Your task to perform on an android device: Clear the shopping cart on bestbuy. Add apple airpods to the cart on bestbuy Image 0: 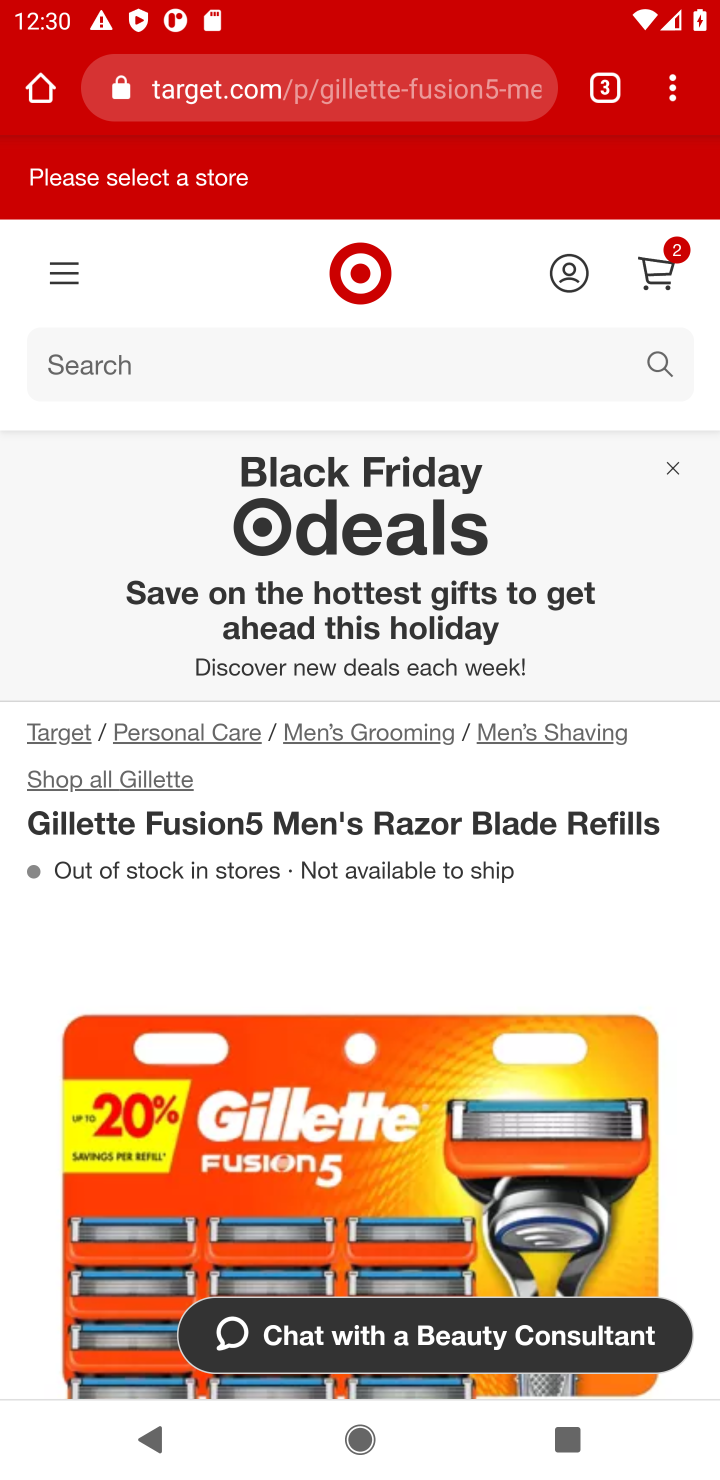
Step 0: click (183, 362)
Your task to perform on an android device: Clear the shopping cart on bestbuy. Add apple airpods to the cart on bestbuy Image 1: 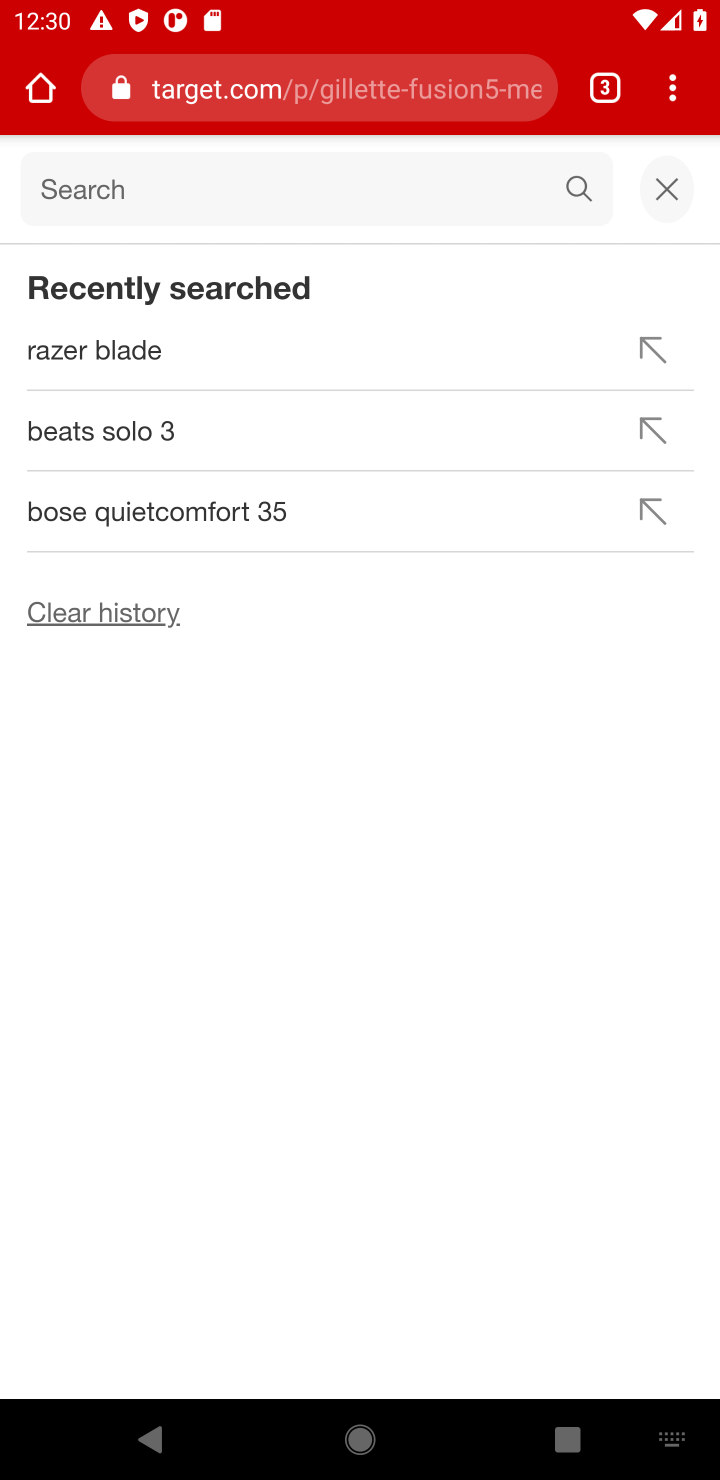
Step 1: type " bestbuy."
Your task to perform on an android device: Clear the shopping cart on bestbuy. Add apple airpods to the cart on bestbuy Image 2: 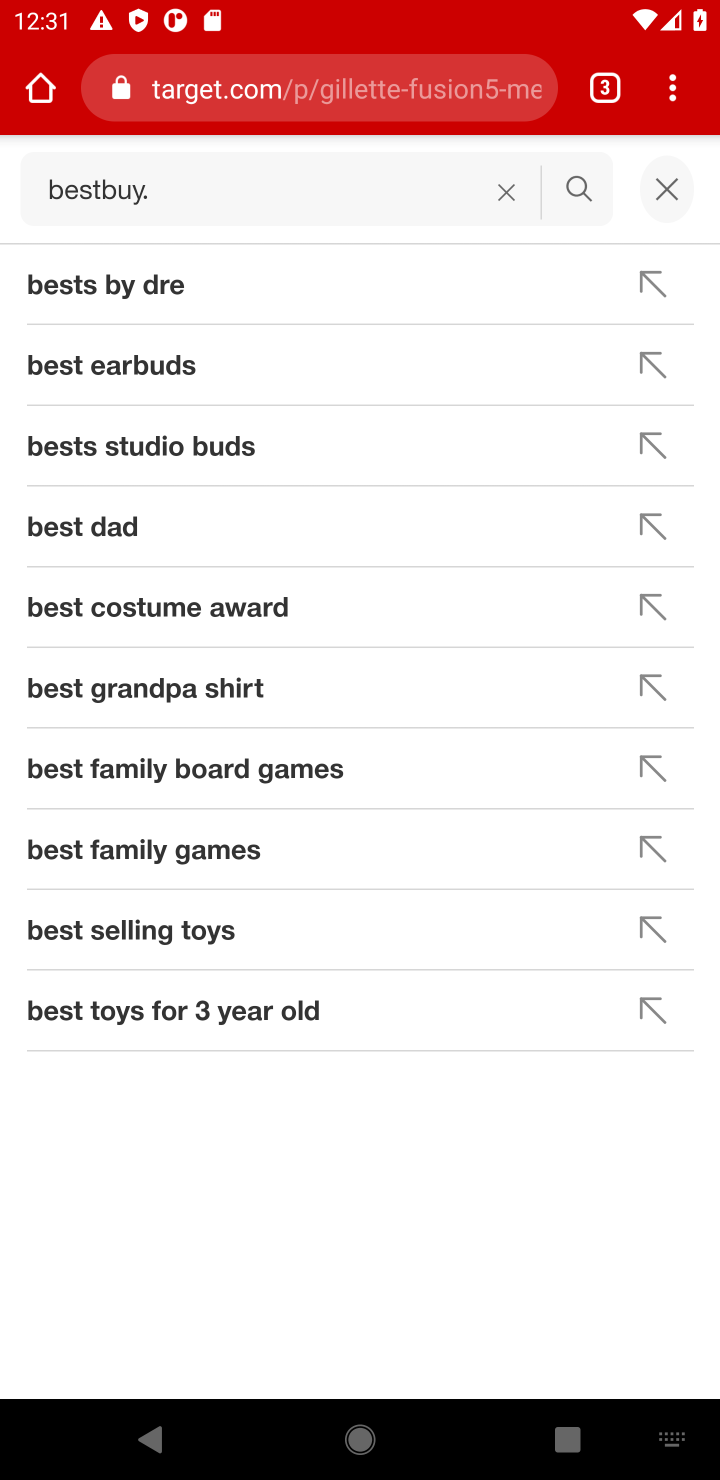
Step 2: click (502, 199)
Your task to perform on an android device: Clear the shopping cart on bestbuy. Add apple airpods to the cart on bestbuy Image 3: 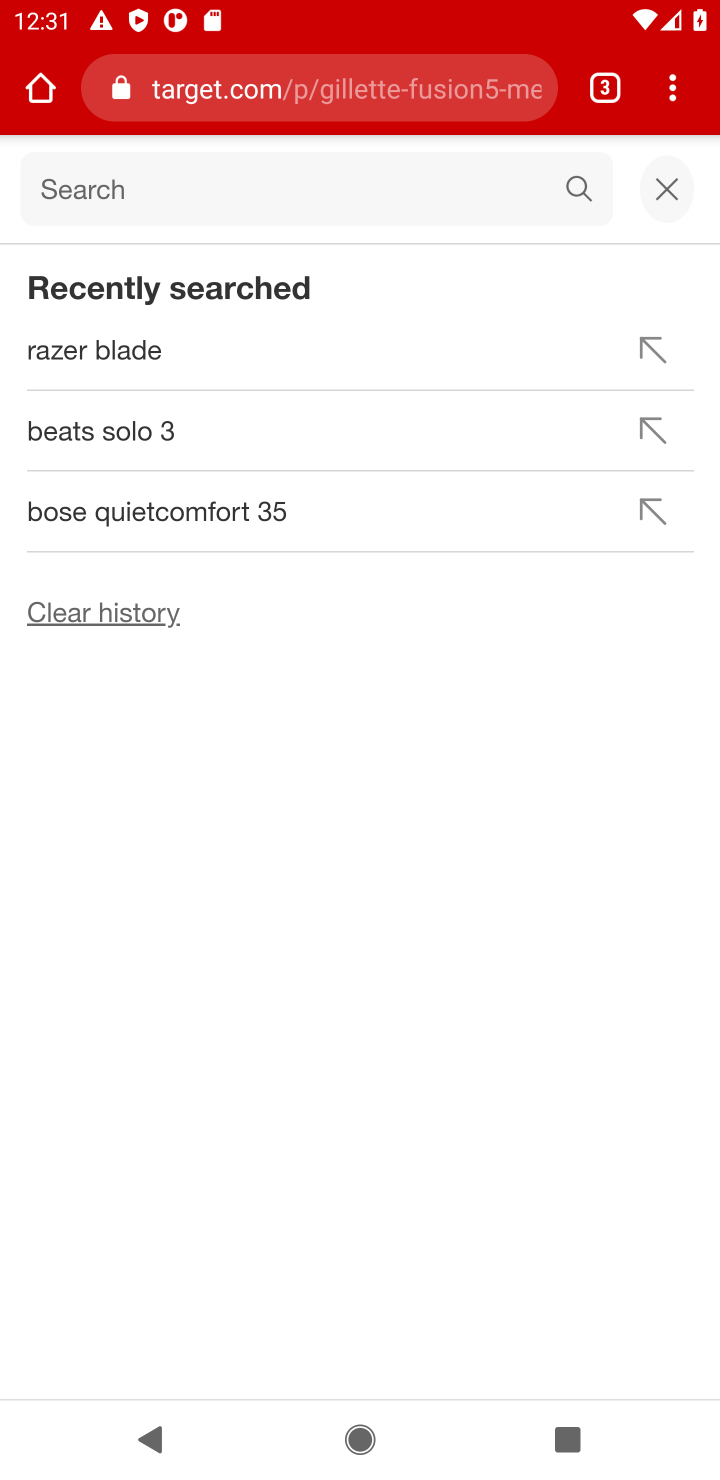
Step 3: type " apple airpods"
Your task to perform on an android device: Clear the shopping cart on bestbuy. Add apple airpods to the cart on bestbuy Image 4: 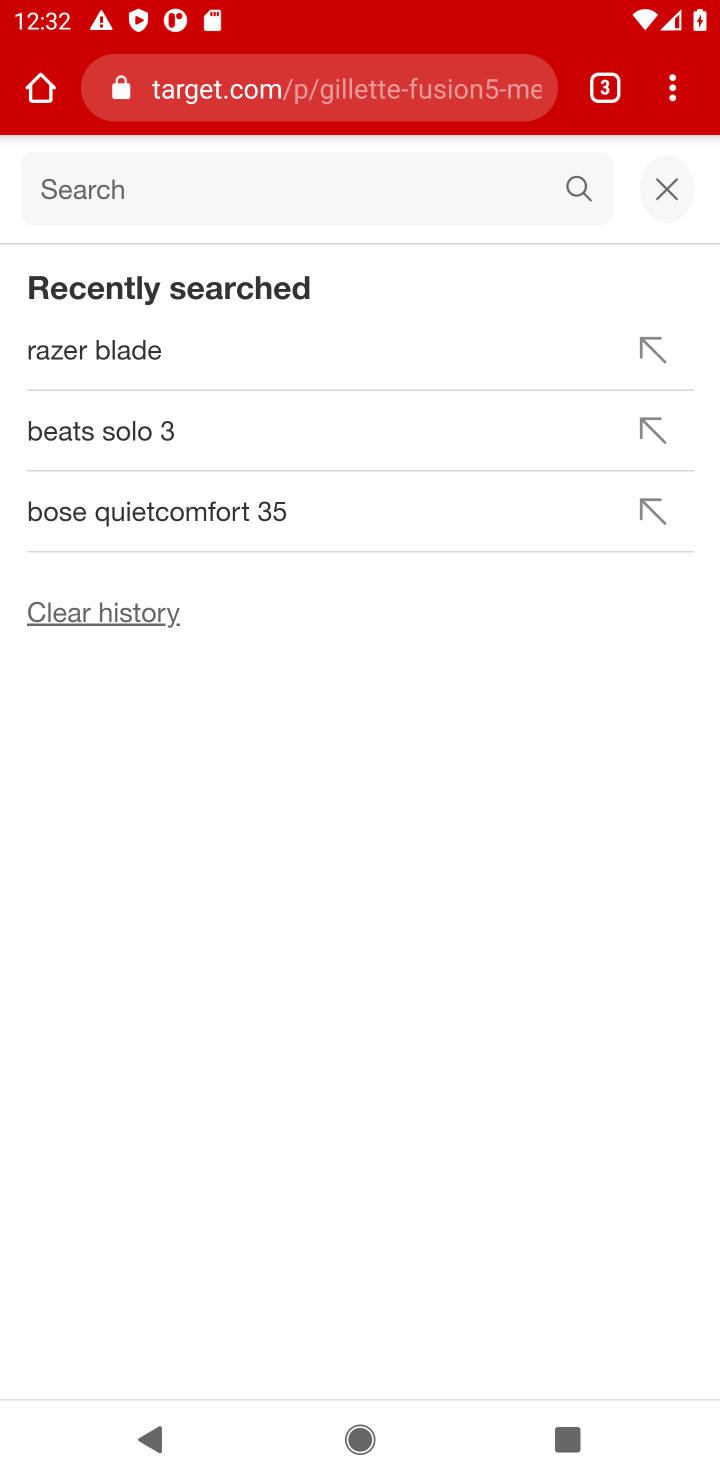
Step 4: click (215, 190)
Your task to perform on an android device: Clear the shopping cart on bestbuy. Add apple airpods to the cart on bestbuy Image 5: 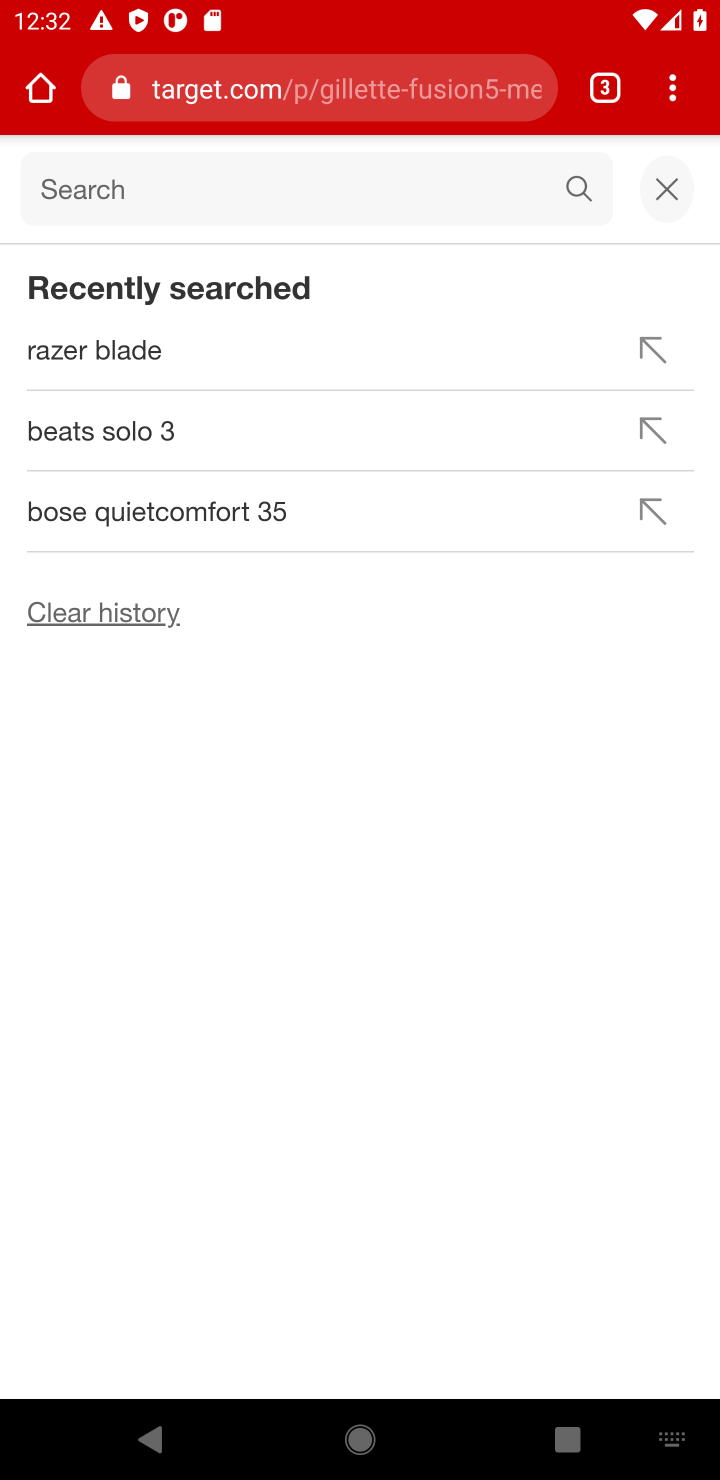
Step 5: type "apple airpods"
Your task to perform on an android device: Clear the shopping cart on bestbuy. Add apple airpods to the cart on bestbuy Image 6: 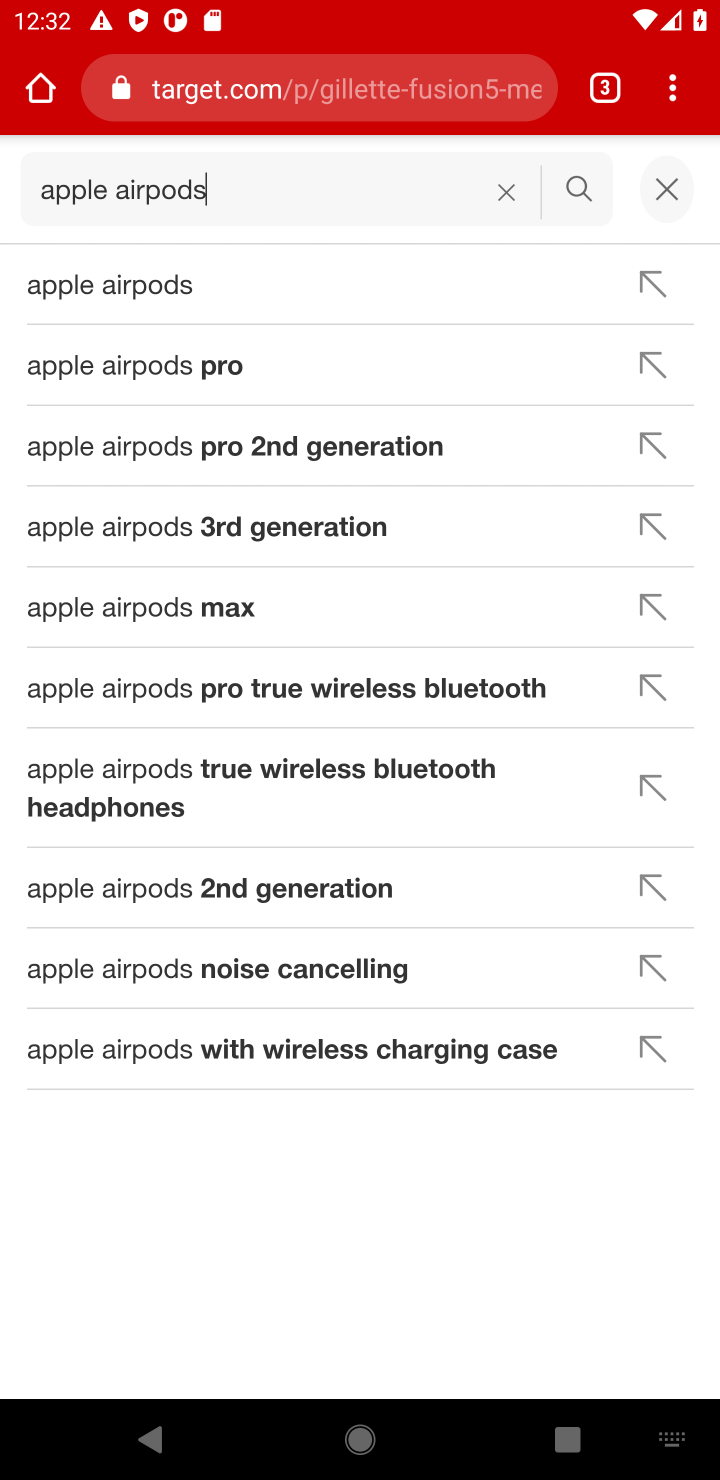
Step 6: type ""
Your task to perform on an android device: Clear the shopping cart on bestbuy. Add apple airpods to the cart on bestbuy Image 7: 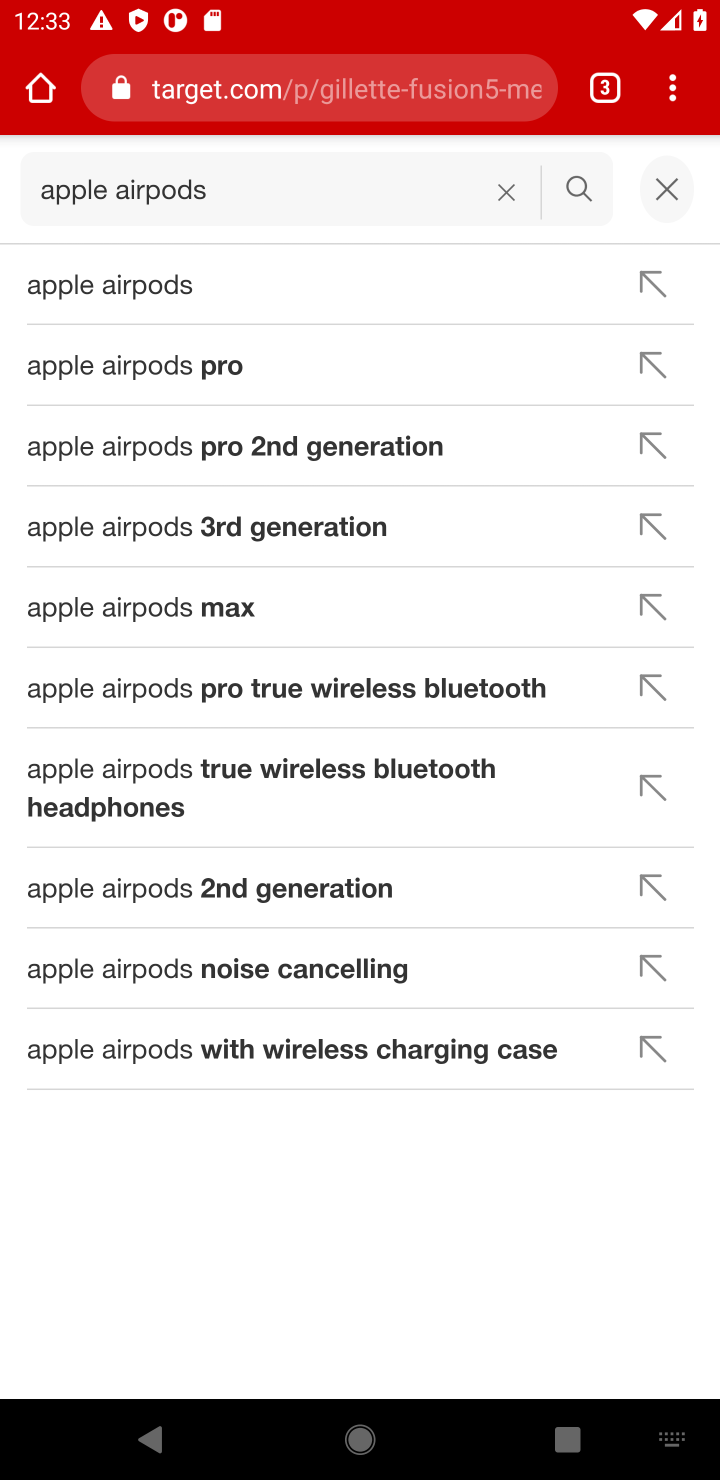
Step 7: click (182, 272)
Your task to perform on an android device: Clear the shopping cart on bestbuy. Add apple airpods to the cart on bestbuy Image 8: 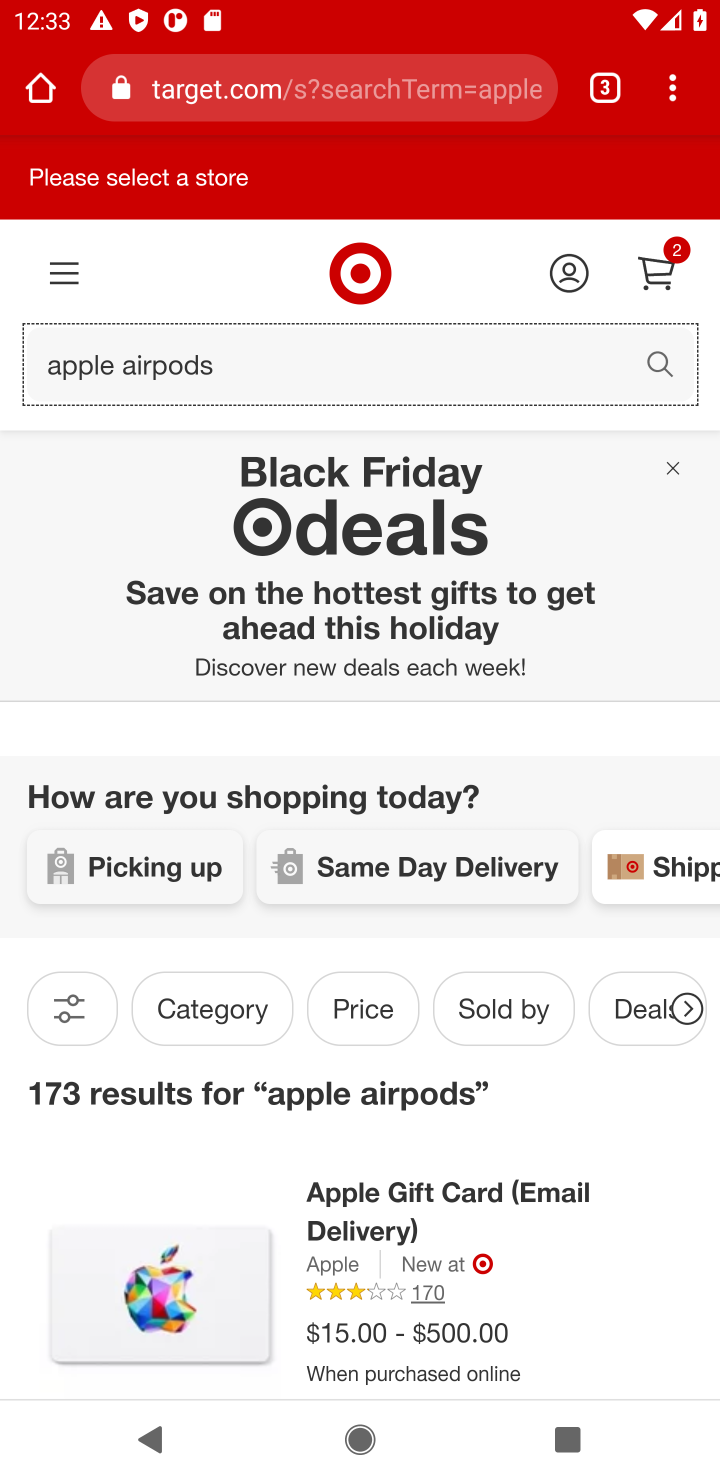
Step 8: task complete